Your task to perform on an android device: turn notification dots on Image 0: 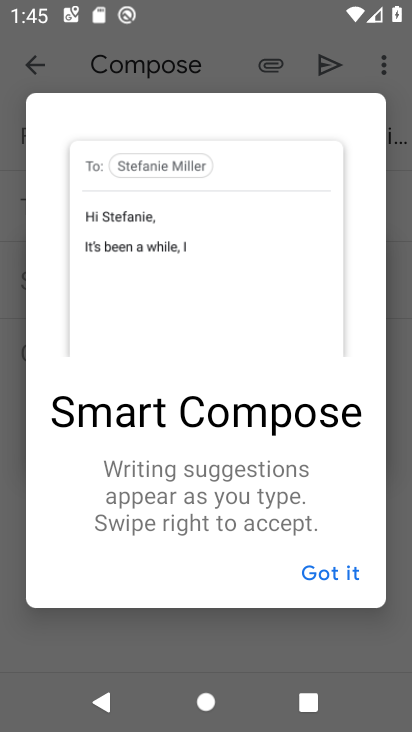
Step 0: press home button
Your task to perform on an android device: turn notification dots on Image 1: 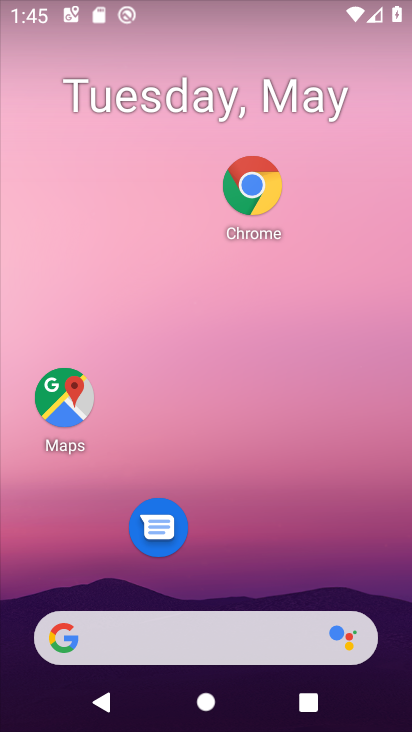
Step 1: drag from (254, 514) to (172, 106)
Your task to perform on an android device: turn notification dots on Image 2: 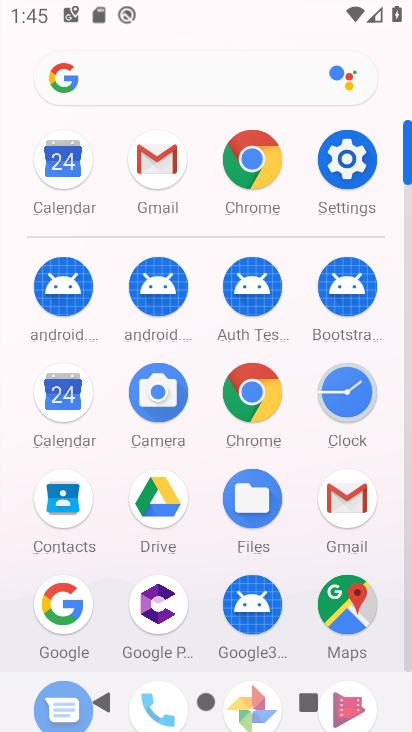
Step 2: click (344, 163)
Your task to perform on an android device: turn notification dots on Image 3: 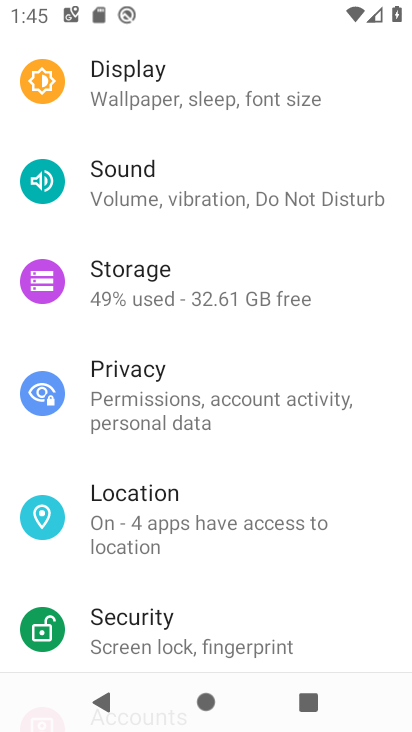
Step 3: drag from (228, 161) to (255, 428)
Your task to perform on an android device: turn notification dots on Image 4: 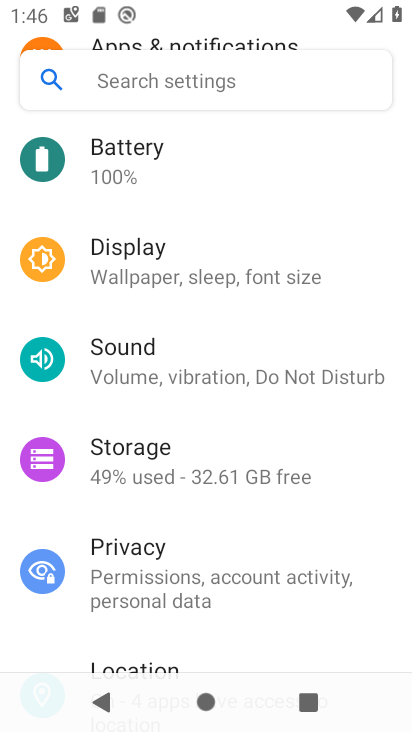
Step 4: drag from (249, 203) to (249, 568)
Your task to perform on an android device: turn notification dots on Image 5: 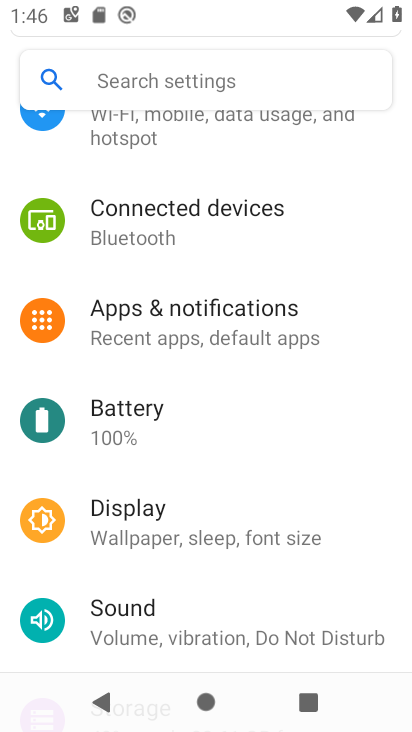
Step 5: click (206, 300)
Your task to perform on an android device: turn notification dots on Image 6: 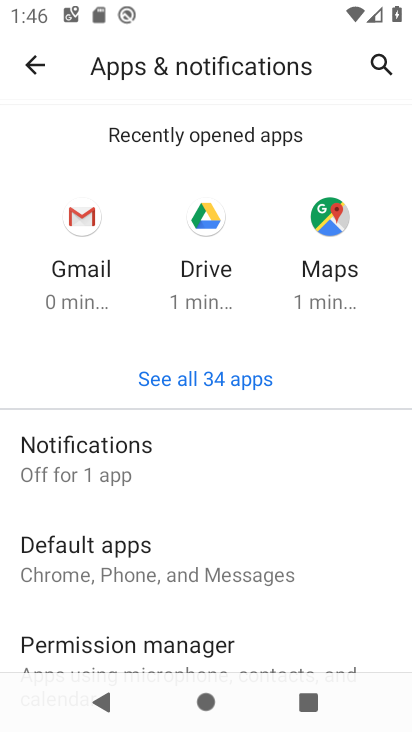
Step 6: click (103, 446)
Your task to perform on an android device: turn notification dots on Image 7: 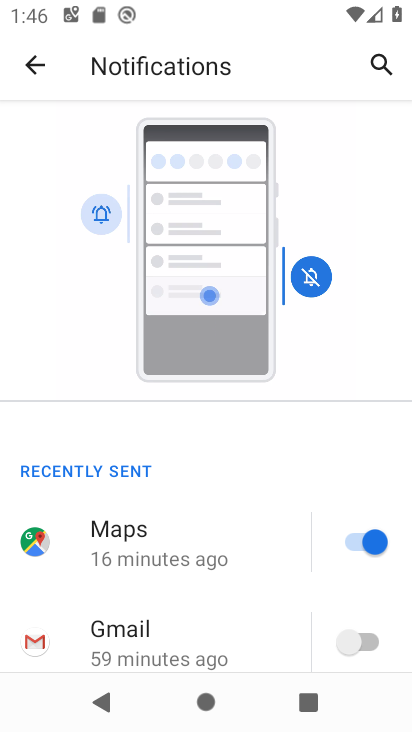
Step 7: drag from (247, 502) to (229, 160)
Your task to perform on an android device: turn notification dots on Image 8: 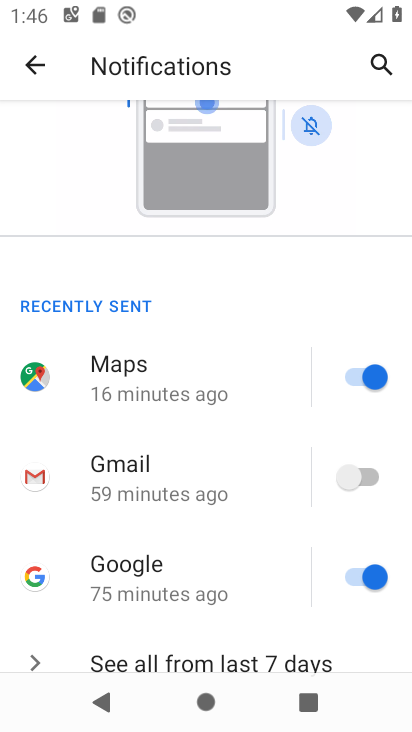
Step 8: drag from (229, 514) to (168, 238)
Your task to perform on an android device: turn notification dots on Image 9: 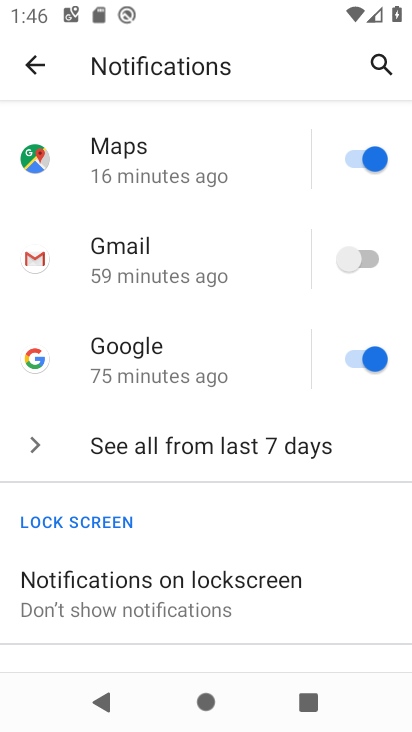
Step 9: drag from (182, 535) to (147, 308)
Your task to perform on an android device: turn notification dots on Image 10: 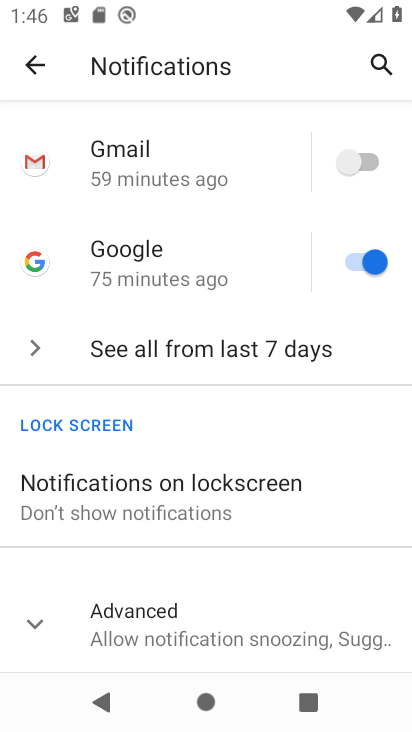
Step 10: click (29, 625)
Your task to perform on an android device: turn notification dots on Image 11: 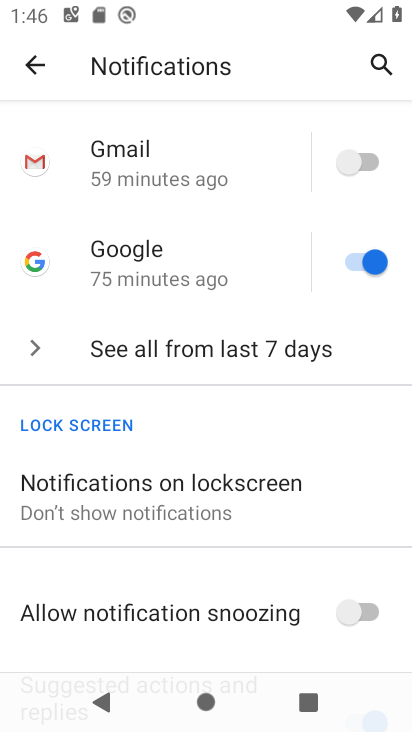
Step 11: drag from (214, 535) to (197, 385)
Your task to perform on an android device: turn notification dots on Image 12: 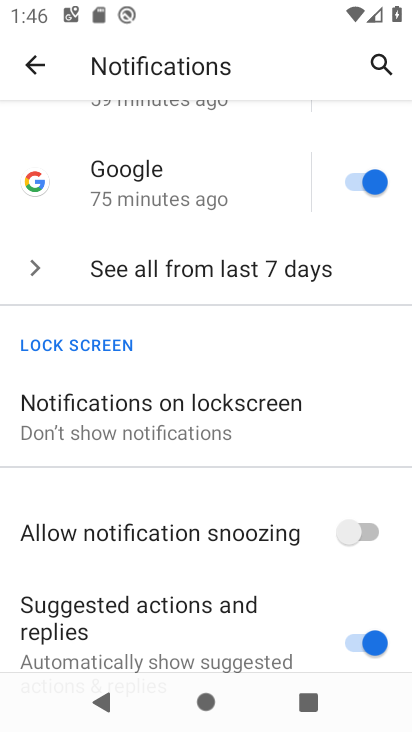
Step 12: drag from (243, 556) to (223, 283)
Your task to perform on an android device: turn notification dots on Image 13: 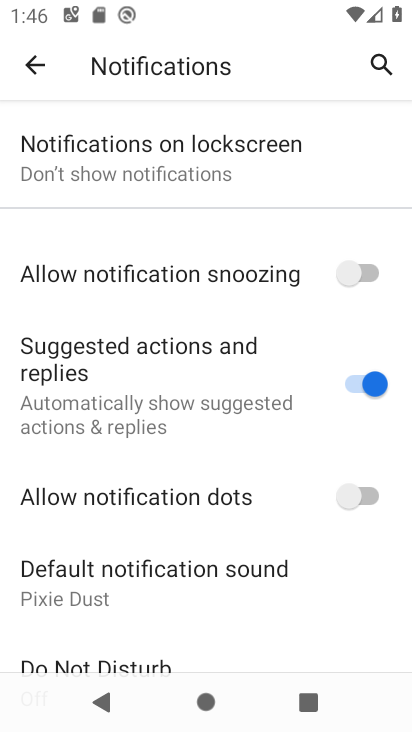
Step 13: click (366, 493)
Your task to perform on an android device: turn notification dots on Image 14: 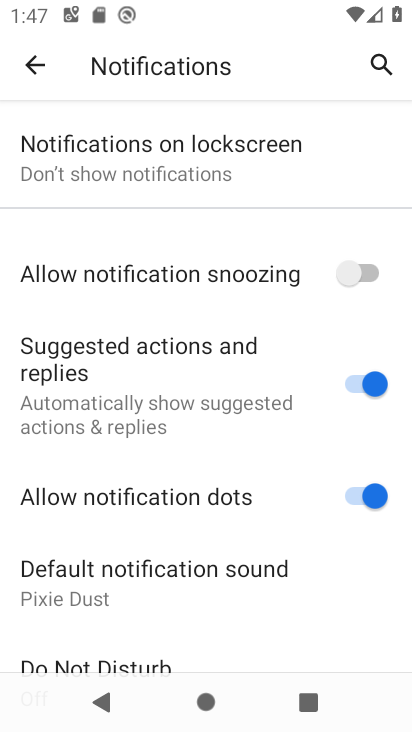
Step 14: task complete